Your task to perform on an android device: turn on notifications settings in the gmail app Image 0: 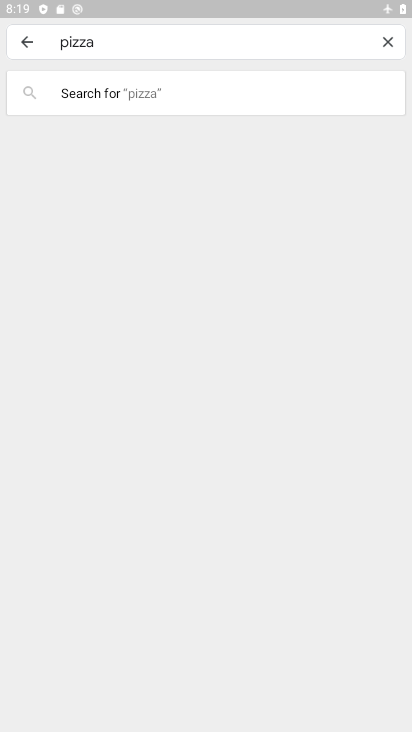
Step 0: press home button
Your task to perform on an android device: turn on notifications settings in the gmail app Image 1: 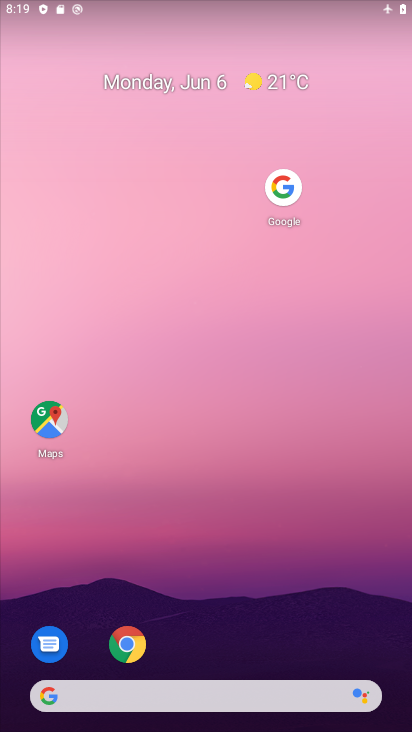
Step 1: drag from (201, 671) to (101, 64)
Your task to perform on an android device: turn on notifications settings in the gmail app Image 2: 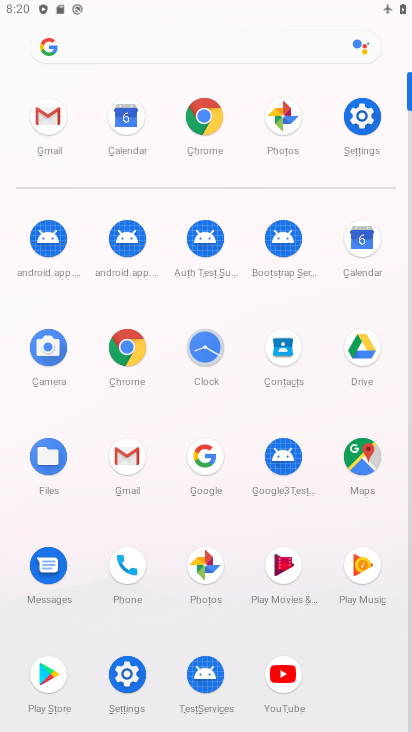
Step 2: click (124, 464)
Your task to perform on an android device: turn on notifications settings in the gmail app Image 3: 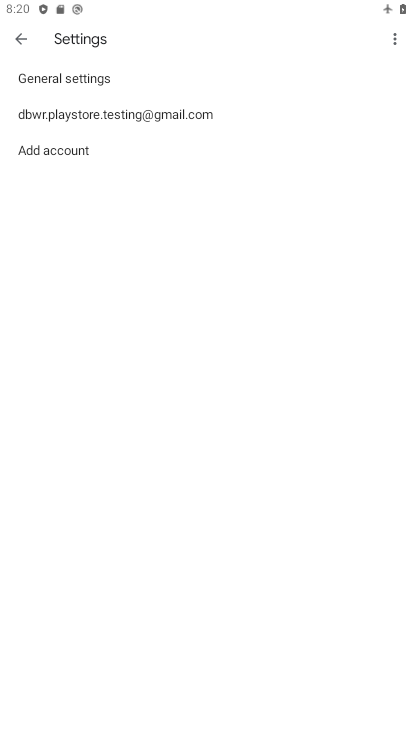
Step 3: click (65, 75)
Your task to perform on an android device: turn on notifications settings in the gmail app Image 4: 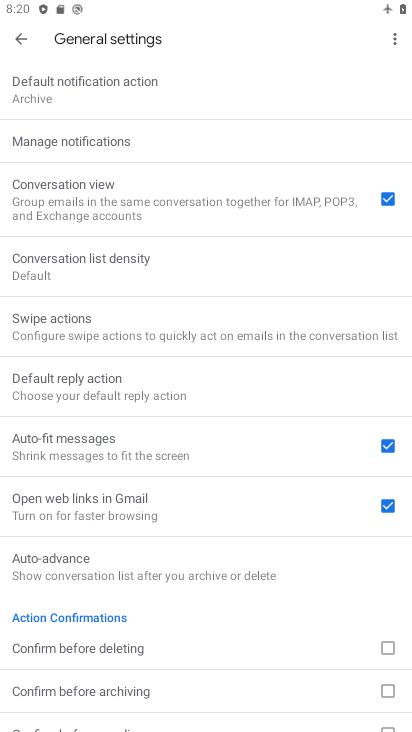
Step 4: click (65, 138)
Your task to perform on an android device: turn on notifications settings in the gmail app Image 5: 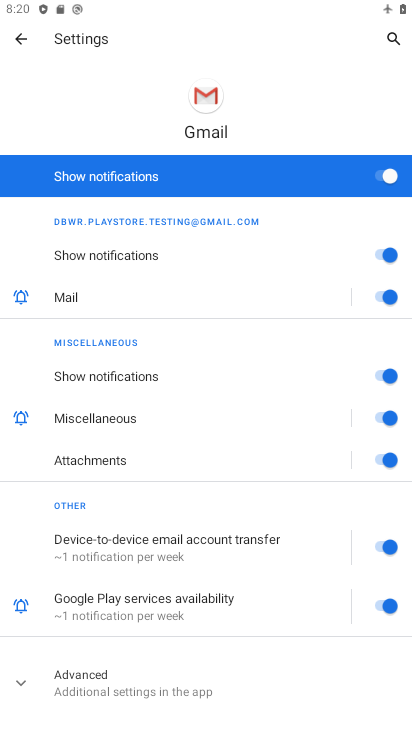
Step 5: task complete